Your task to perform on an android device: turn on wifi Image 0: 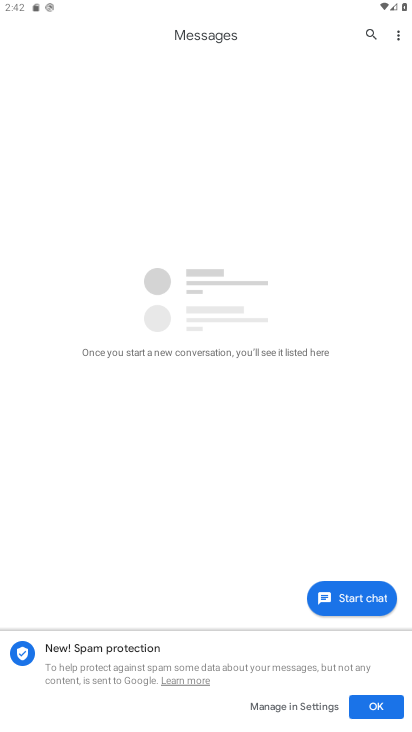
Step 0: press home button
Your task to perform on an android device: turn on wifi Image 1: 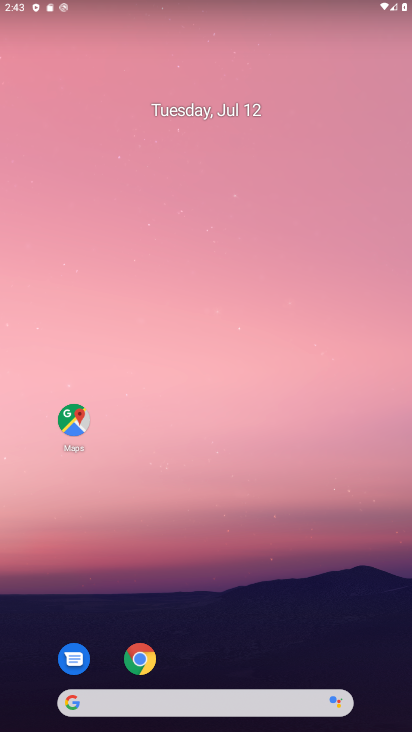
Step 1: drag from (214, 684) to (308, 172)
Your task to perform on an android device: turn on wifi Image 2: 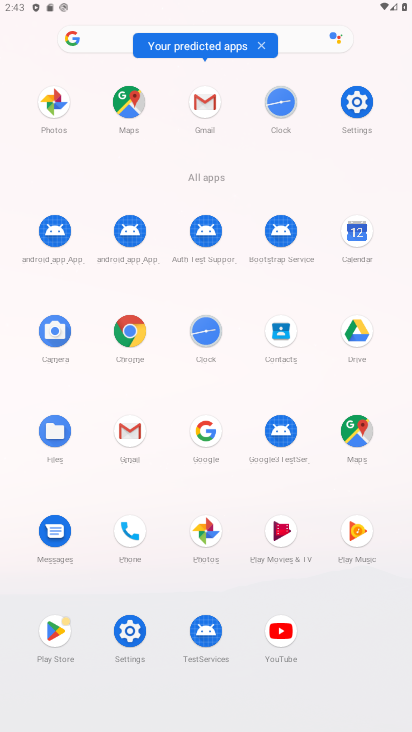
Step 2: click (125, 635)
Your task to perform on an android device: turn on wifi Image 3: 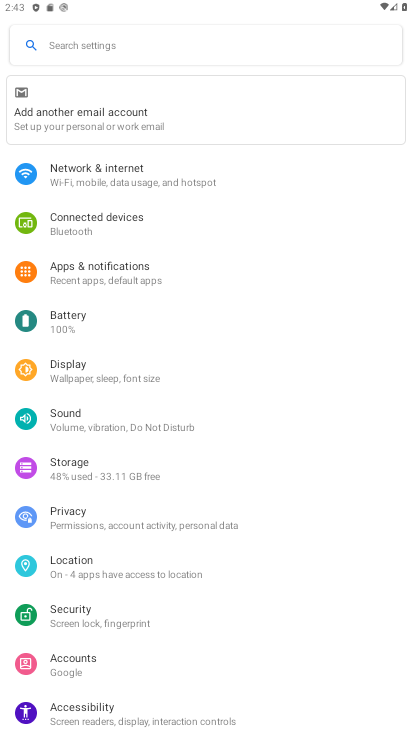
Step 3: click (173, 177)
Your task to perform on an android device: turn on wifi Image 4: 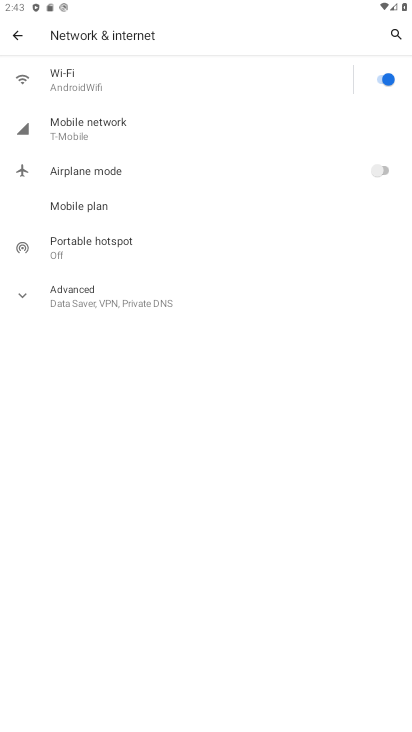
Step 4: click (149, 87)
Your task to perform on an android device: turn on wifi Image 5: 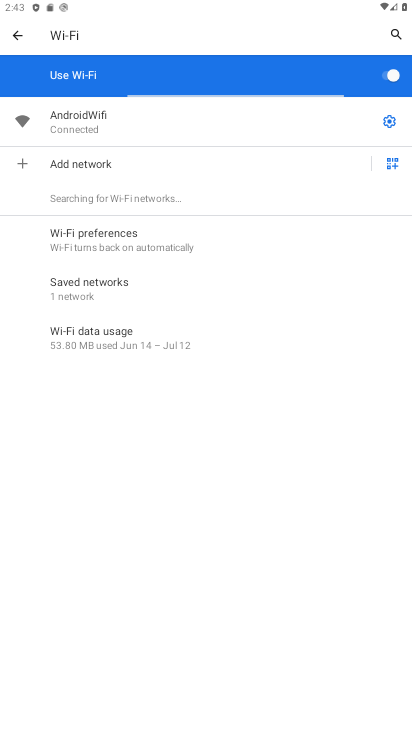
Step 5: task complete